Your task to perform on an android device: Open Amazon Image 0: 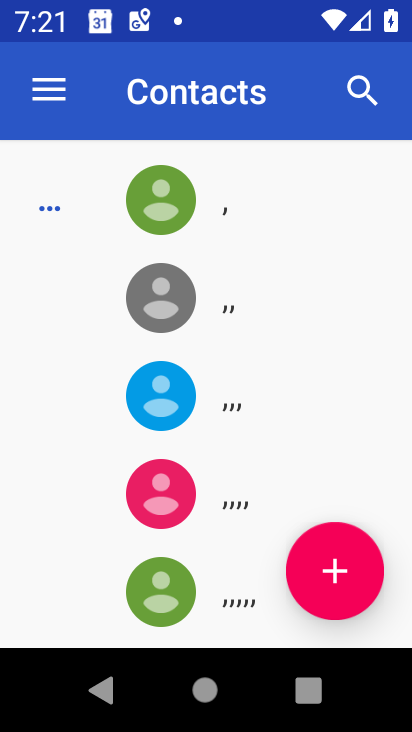
Step 0: press home button
Your task to perform on an android device: Open Amazon Image 1: 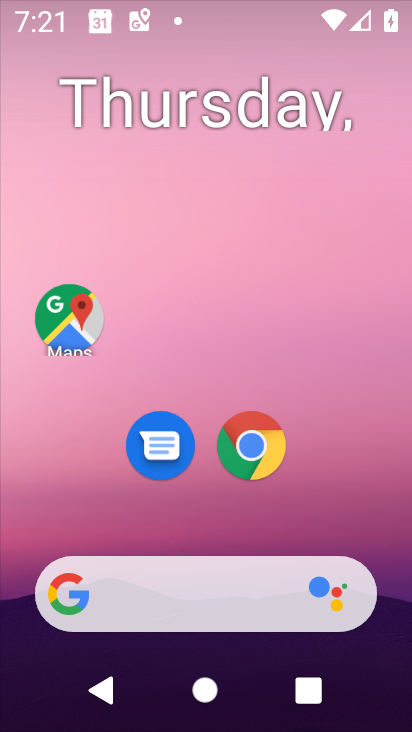
Step 1: drag from (392, 619) to (330, 91)
Your task to perform on an android device: Open Amazon Image 2: 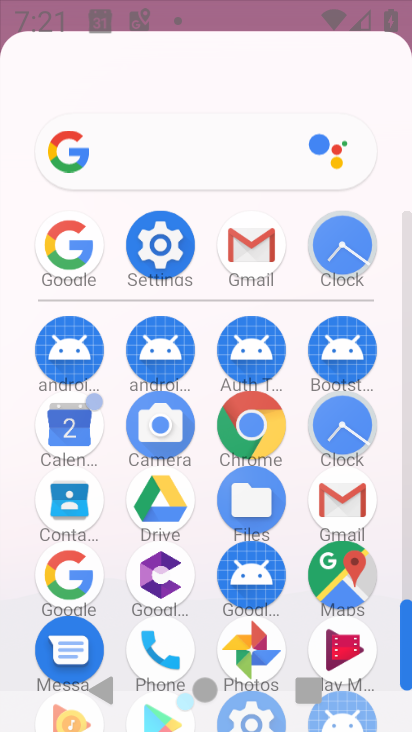
Step 2: click (319, 67)
Your task to perform on an android device: Open Amazon Image 3: 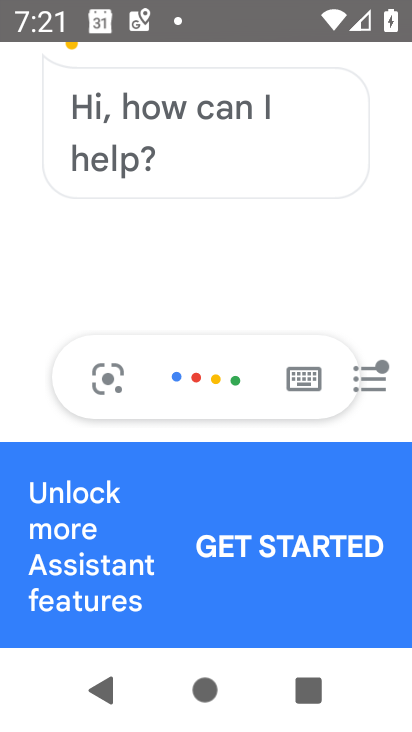
Step 3: press home button
Your task to perform on an android device: Open Amazon Image 4: 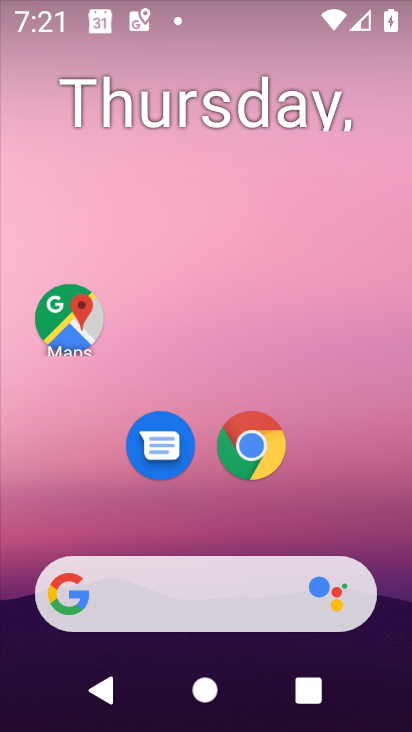
Step 4: drag from (382, 667) to (408, 553)
Your task to perform on an android device: Open Amazon Image 5: 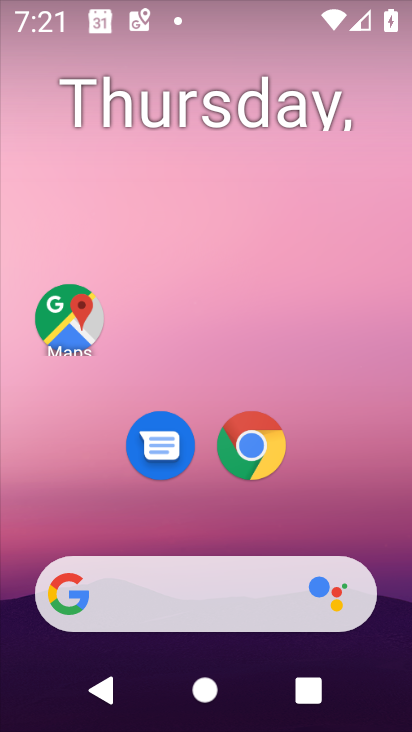
Step 5: drag from (399, 594) to (349, 61)
Your task to perform on an android device: Open Amazon Image 6: 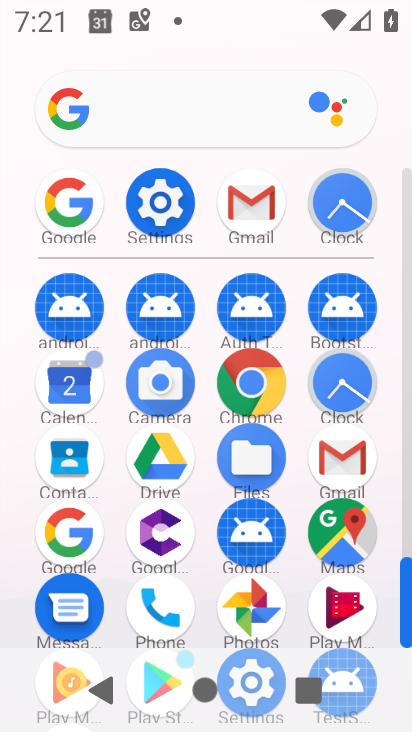
Step 6: click (67, 522)
Your task to perform on an android device: Open Amazon Image 7: 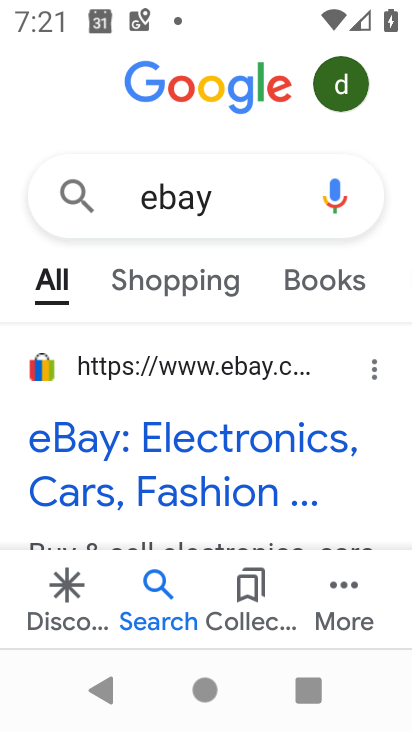
Step 7: press back button
Your task to perform on an android device: Open Amazon Image 8: 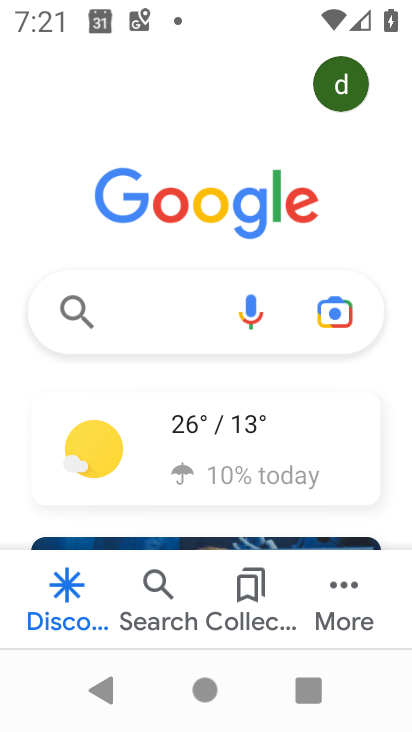
Step 8: click (105, 312)
Your task to perform on an android device: Open Amazon Image 9: 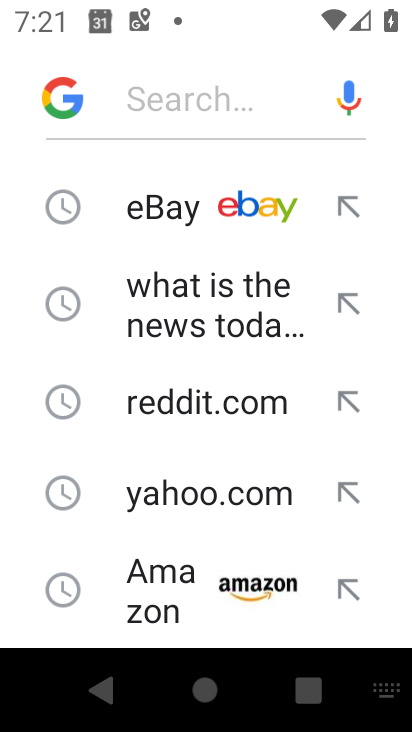
Step 9: click (177, 581)
Your task to perform on an android device: Open Amazon Image 10: 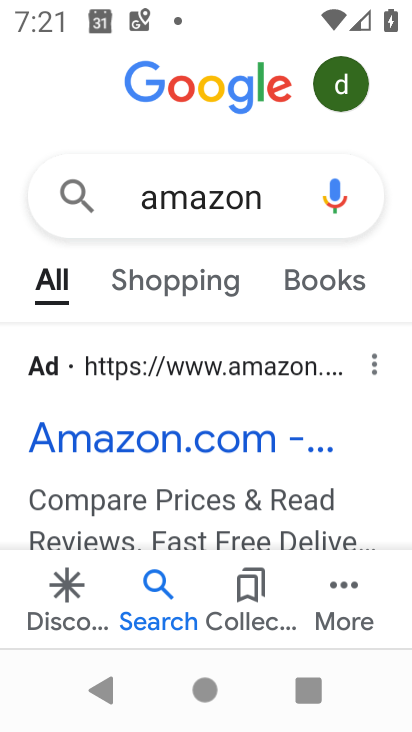
Step 10: task complete